Your task to perform on an android device: toggle show notifications on the lock screen Image 0: 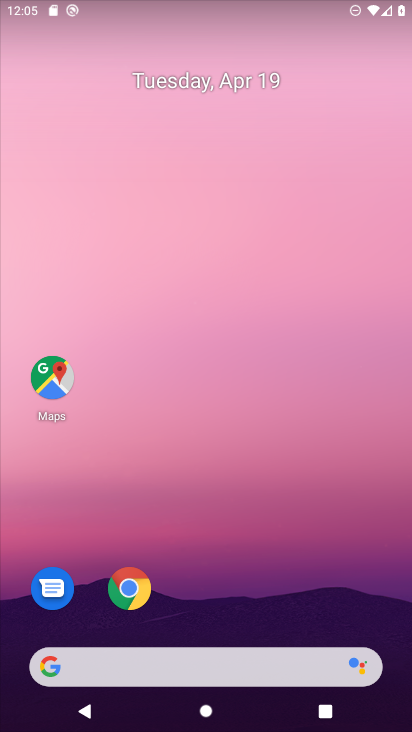
Step 0: drag from (259, 448) to (147, 20)
Your task to perform on an android device: toggle show notifications on the lock screen Image 1: 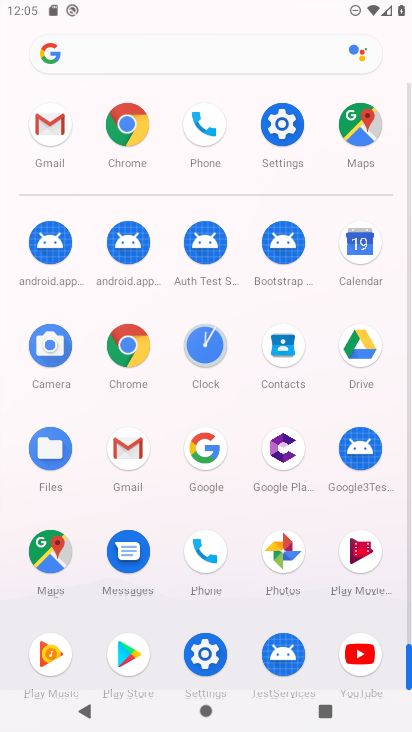
Step 1: drag from (11, 470) to (0, 269)
Your task to perform on an android device: toggle show notifications on the lock screen Image 2: 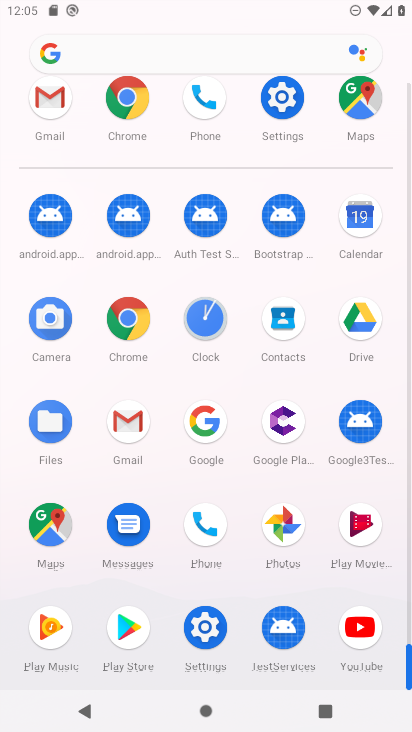
Step 2: click (208, 625)
Your task to perform on an android device: toggle show notifications on the lock screen Image 3: 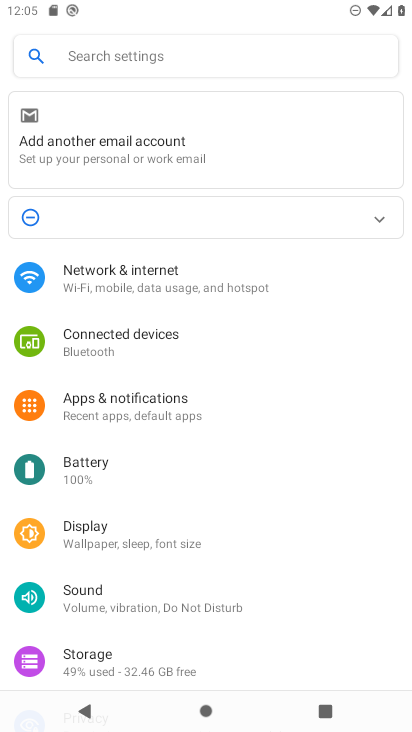
Step 3: click (134, 414)
Your task to perform on an android device: toggle show notifications on the lock screen Image 4: 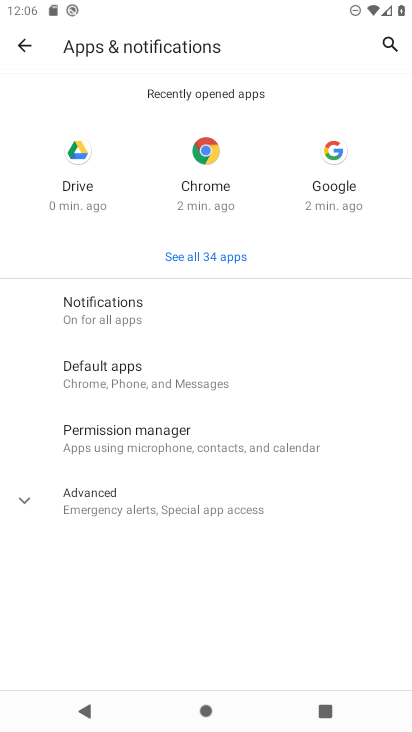
Step 4: click (156, 316)
Your task to perform on an android device: toggle show notifications on the lock screen Image 5: 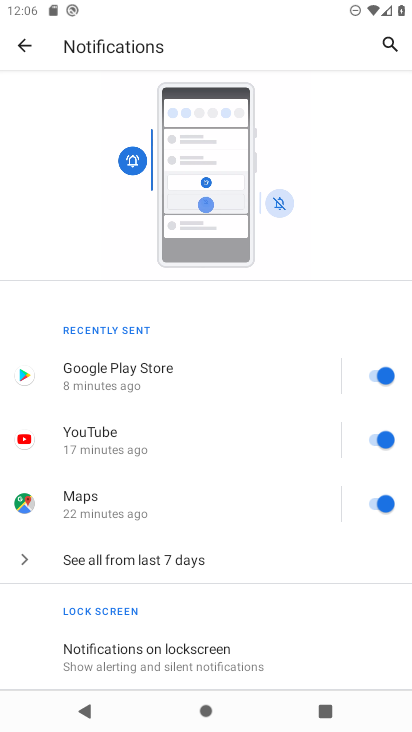
Step 5: drag from (243, 599) to (260, 227)
Your task to perform on an android device: toggle show notifications on the lock screen Image 6: 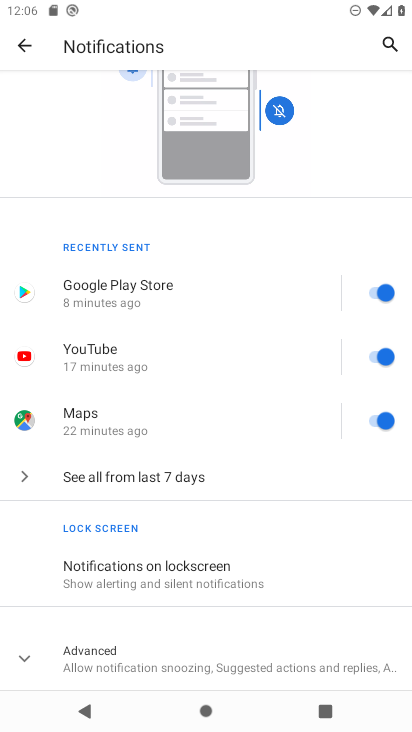
Step 6: click (141, 570)
Your task to perform on an android device: toggle show notifications on the lock screen Image 7: 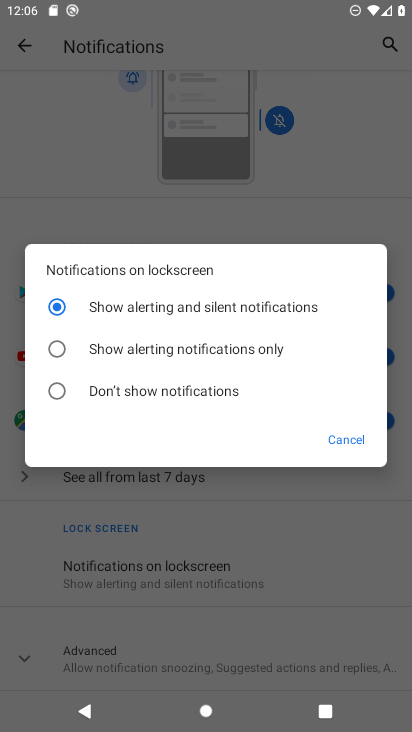
Step 7: click (103, 349)
Your task to perform on an android device: toggle show notifications on the lock screen Image 8: 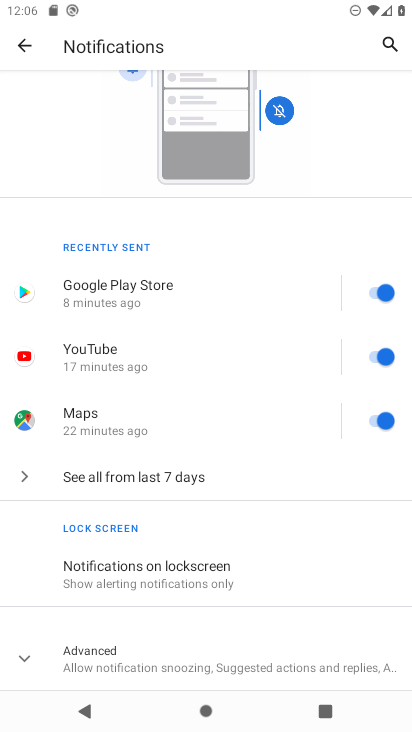
Step 8: task complete